Your task to perform on an android device: Go to wifi settings Image 0: 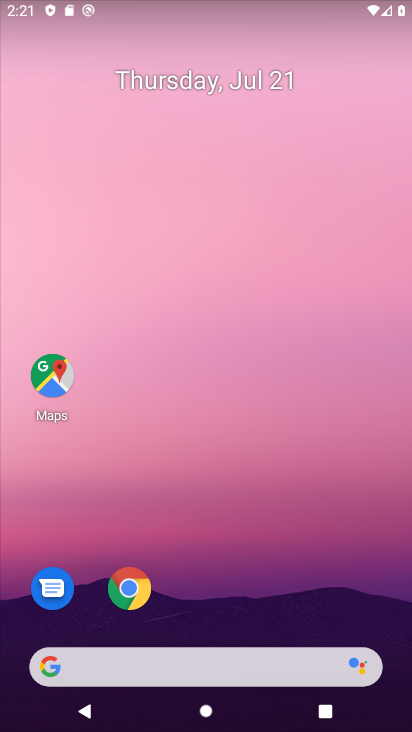
Step 0: drag from (229, 580) to (95, 19)
Your task to perform on an android device: Go to wifi settings Image 1: 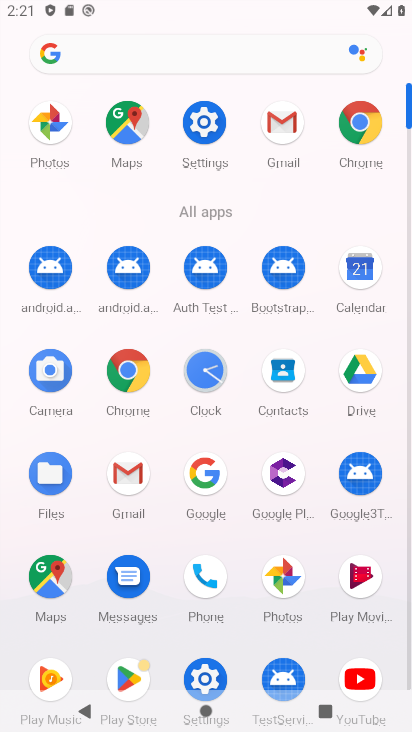
Step 1: click (204, 121)
Your task to perform on an android device: Go to wifi settings Image 2: 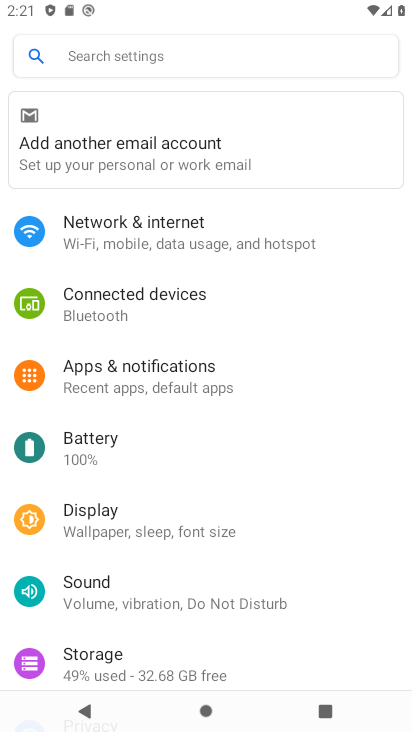
Step 2: click (145, 228)
Your task to perform on an android device: Go to wifi settings Image 3: 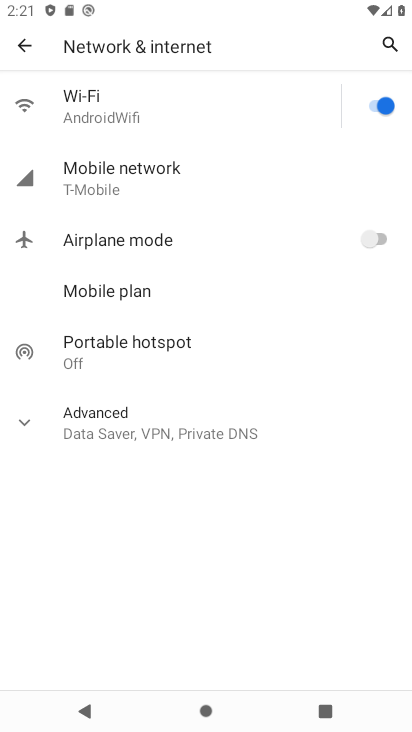
Step 3: click (86, 90)
Your task to perform on an android device: Go to wifi settings Image 4: 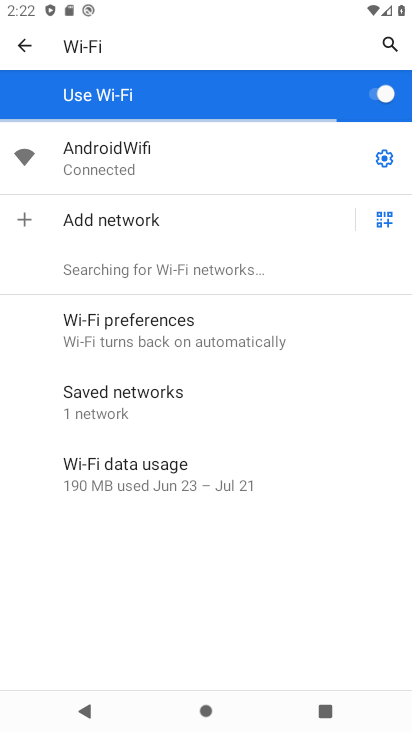
Step 4: task complete